Your task to perform on an android device: open device folders in google photos Image 0: 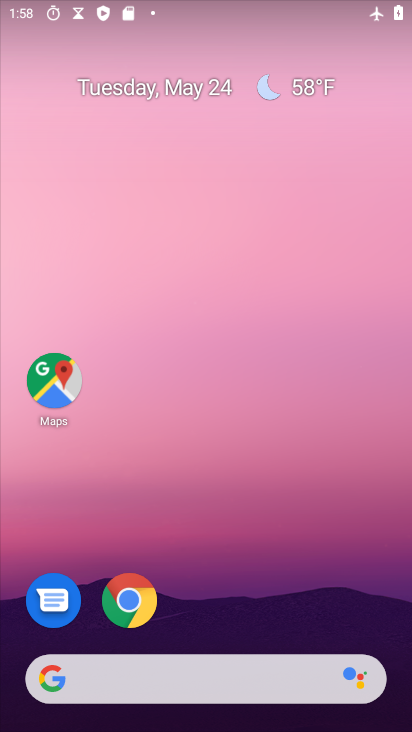
Step 0: drag from (293, 580) to (220, 24)
Your task to perform on an android device: open device folders in google photos Image 1: 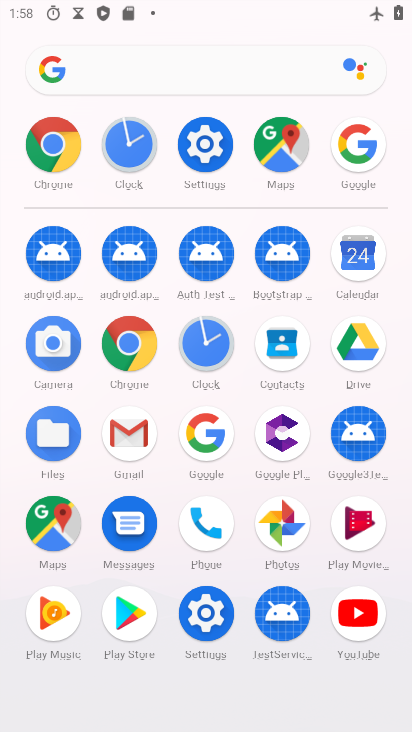
Step 1: click (280, 531)
Your task to perform on an android device: open device folders in google photos Image 2: 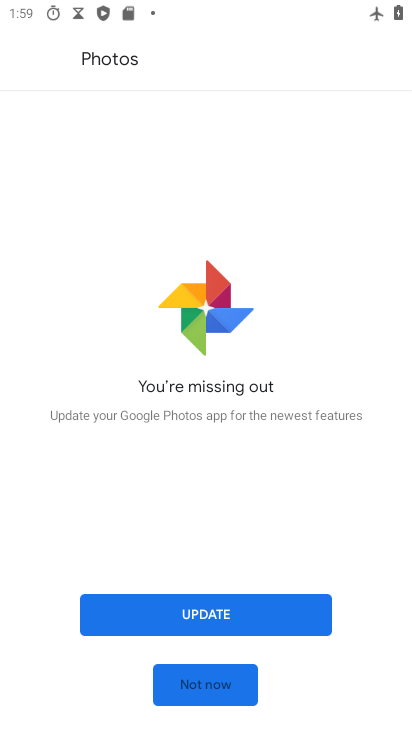
Step 2: click (208, 685)
Your task to perform on an android device: open device folders in google photos Image 3: 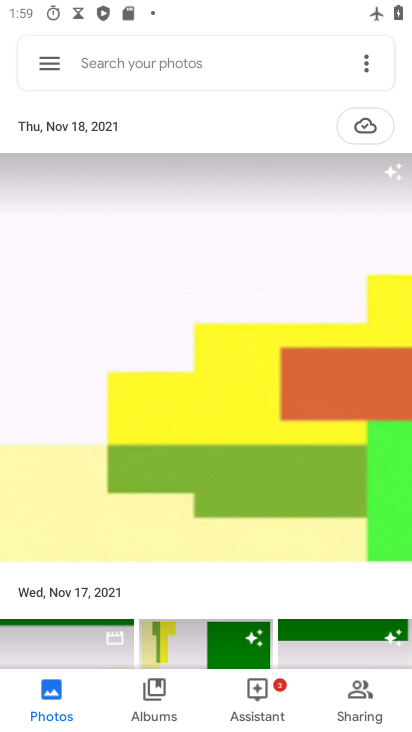
Step 3: click (48, 64)
Your task to perform on an android device: open device folders in google photos Image 4: 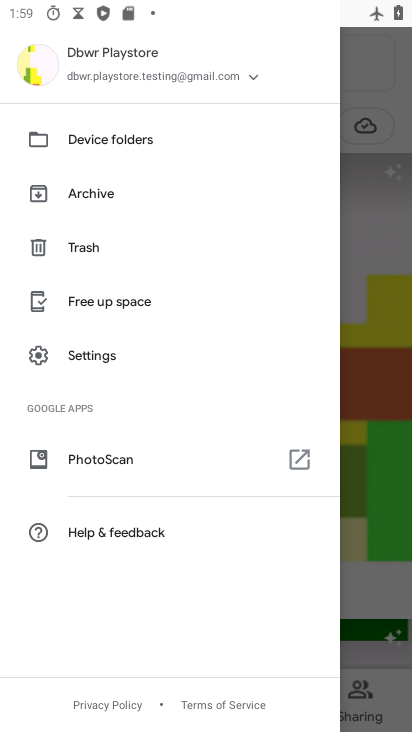
Step 4: click (130, 137)
Your task to perform on an android device: open device folders in google photos Image 5: 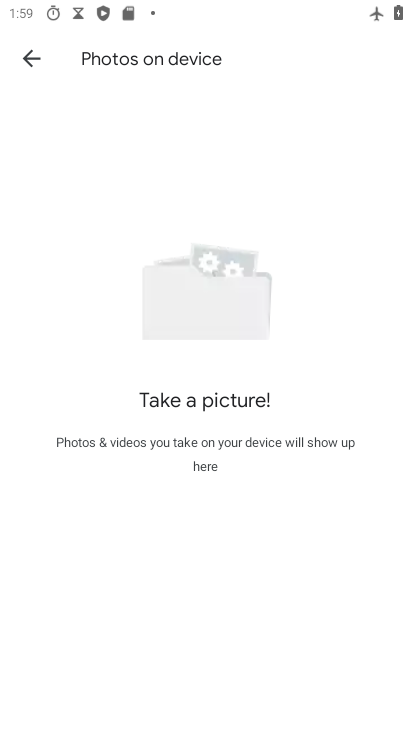
Step 5: task complete